Your task to perform on an android device: Open the calendar and show me this week's events? Image 0: 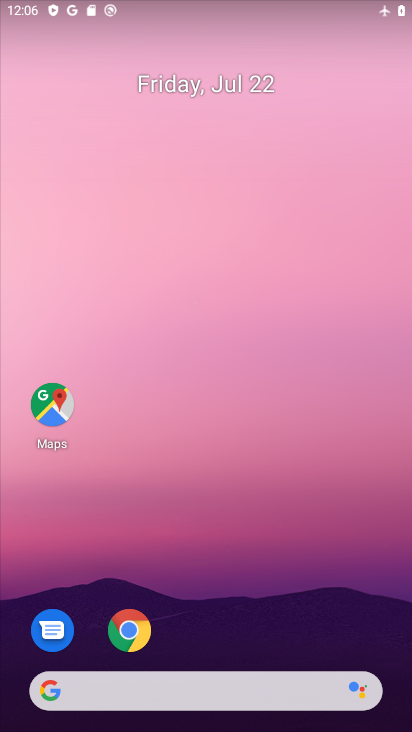
Step 0: drag from (246, 653) to (194, 108)
Your task to perform on an android device: Open the calendar and show me this week's events? Image 1: 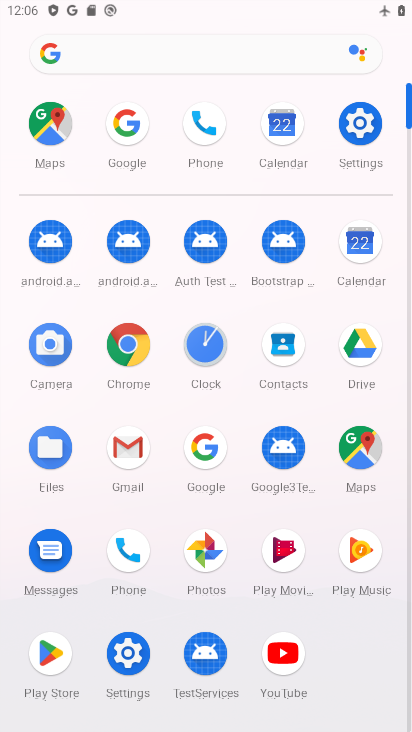
Step 1: click (296, 120)
Your task to perform on an android device: Open the calendar and show me this week's events? Image 2: 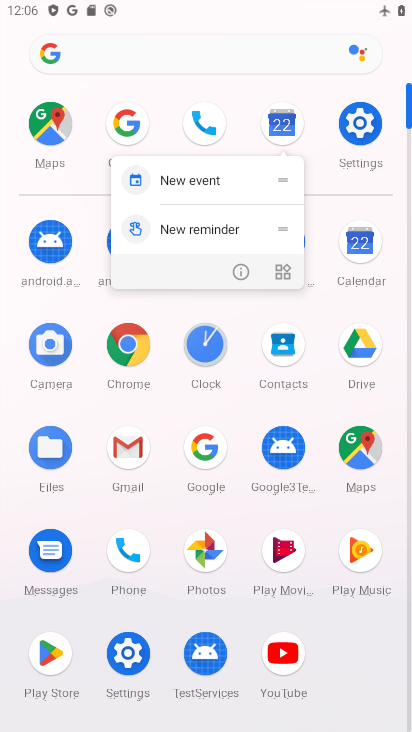
Step 2: click (291, 125)
Your task to perform on an android device: Open the calendar and show me this week's events? Image 3: 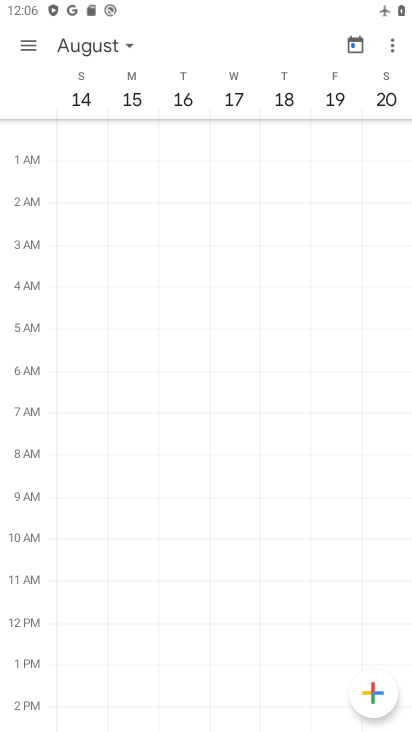
Step 3: click (360, 44)
Your task to perform on an android device: Open the calendar and show me this week's events? Image 4: 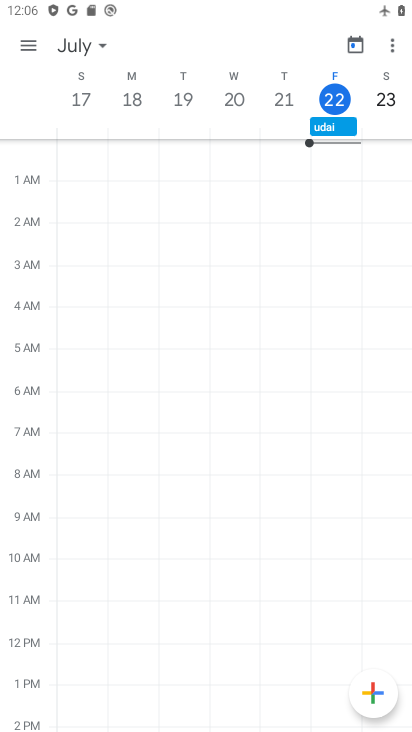
Step 4: task complete